Your task to perform on an android device: open app "Chime – Mobile Banking" (install if not already installed) and go to login screen Image 0: 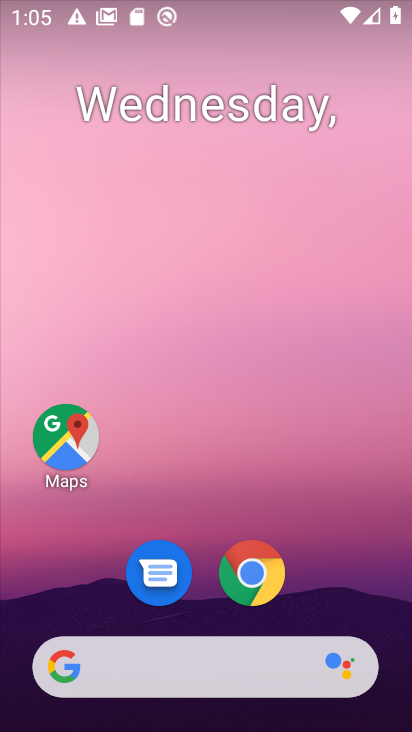
Step 0: press home button
Your task to perform on an android device: open app "Chime – Mobile Banking" (install if not already installed) and go to login screen Image 1: 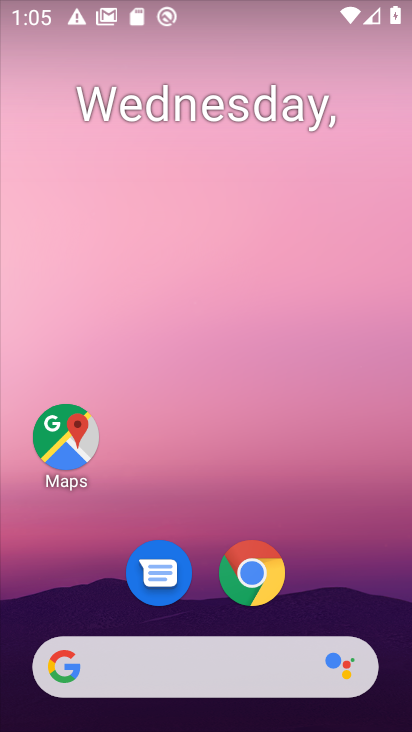
Step 1: click (261, 4)
Your task to perform on an android device: open app "Chime – Mobile Banking" (install if not already installed) and go to login screen Image 2: 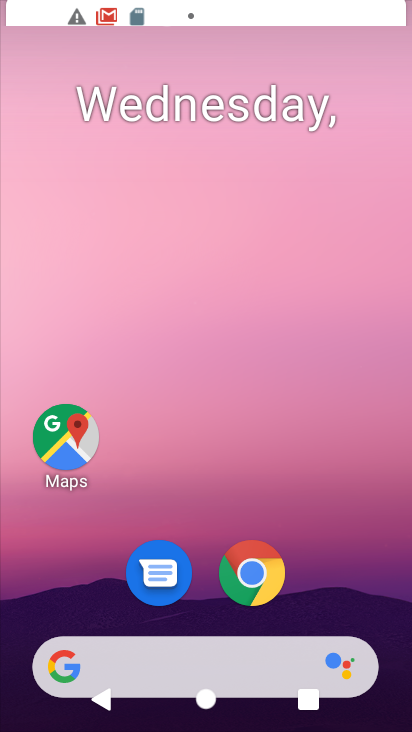
Step 2: drag from (306, 611) to (264, 53)
Your task to perform on an android device: open app "Chime – Mobile Banking" (install if not already installed) and go to login screen Image 3: 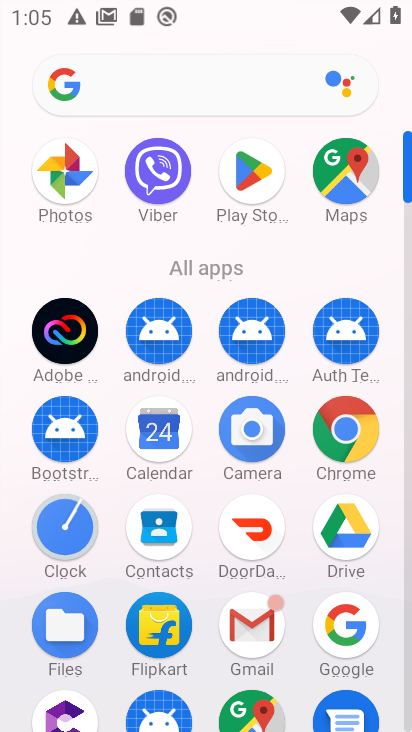
Step 3: click (244, 160)
Your task to perform on an android device: open app "Chime – Mobile Banking" (install if not already installed) and go to login screen Image 4: 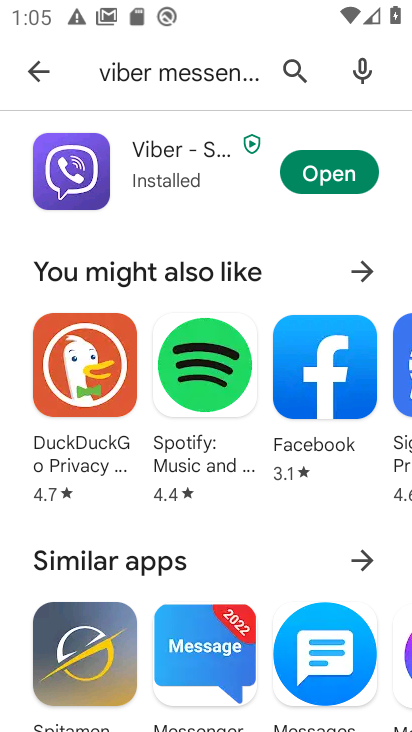
Step 4: click (291, 62)
Your task to perform on an android device: open app "Chime – Mobile Banking" (install if not already installed) and go to login screen Image 5: 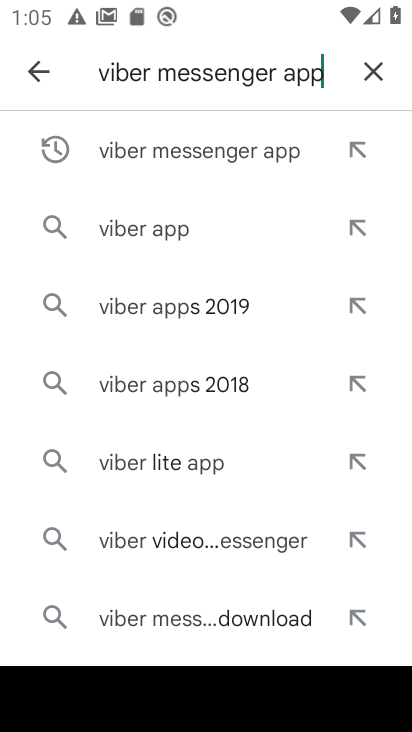
Step 5: click (372, 64)
Your task to perform on an android device: open app "Chime – Mobile Banking" (install if not already installed) and go to login screen Image 6: 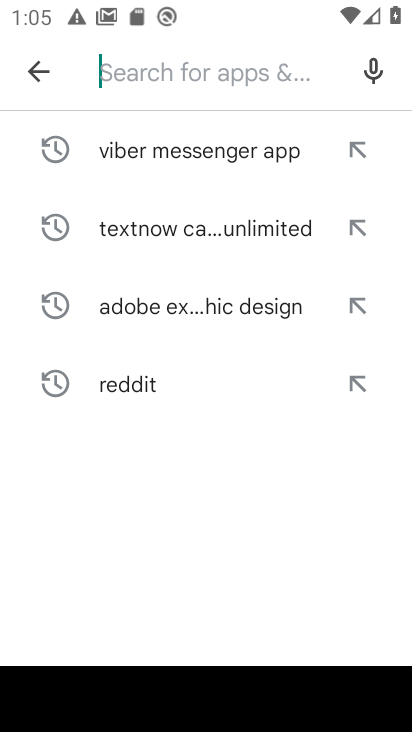
Step 6: type "Chime"
Your task to perform on an android device: open app "Chime – Mobile Banking" (install if not already installed) and go to login screen Image 7: 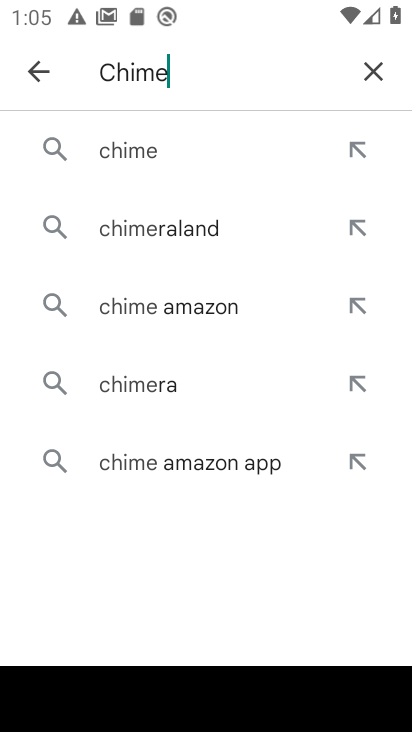
Step 7: click (166, 147)
Your task to perform on an android device: open app "Chime – Mobile Banking" (install if not already installed) and go to login screen Image 8: 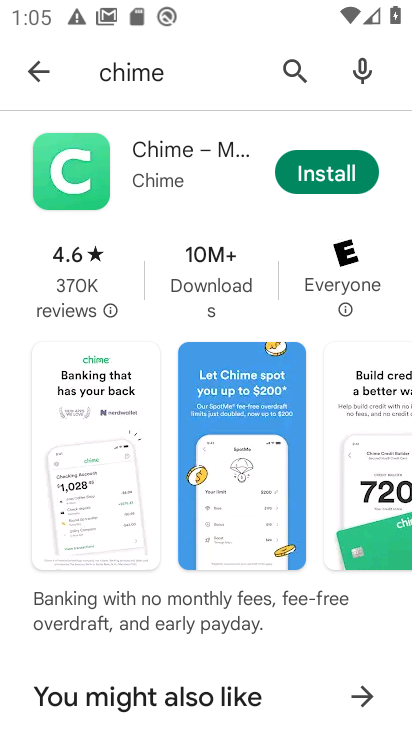
Step 8: click (324, 171)
Your task to perform on an android device: open app "Chime – Mobile Banking" (install if not already installed) and go to login screen Image 9: 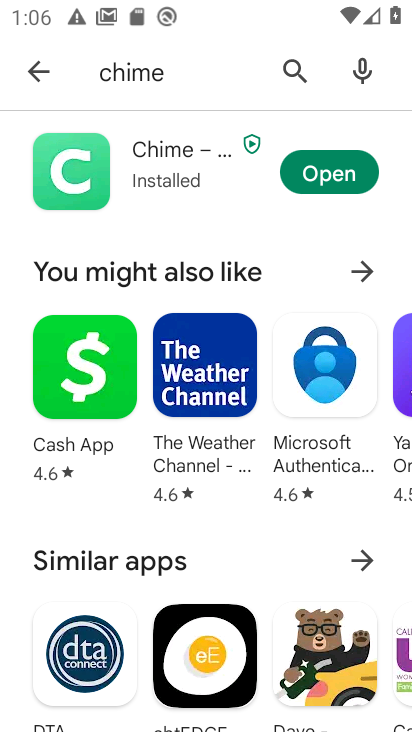
Step 9: click (335, 172)
Your task to perform on an android device: open app "Chime – Mobile Banking" (install if not already installed) and go to login screen Image 10: 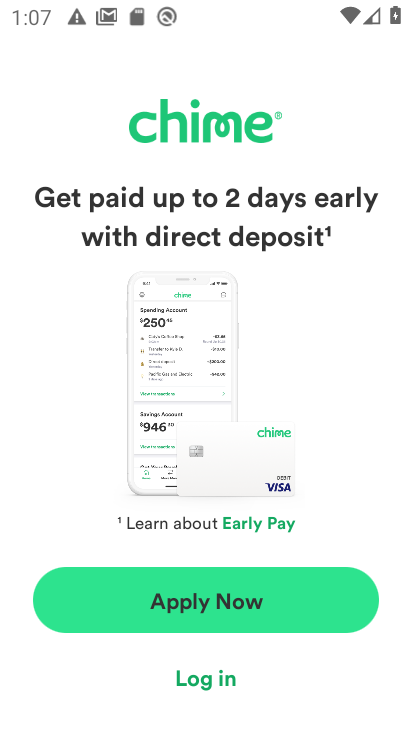
Step 10: click (206, 683)
Your task to perform on an android device: open app "Chime – Mobile Banking" (install if not already installed) and go to login screen Image 11: 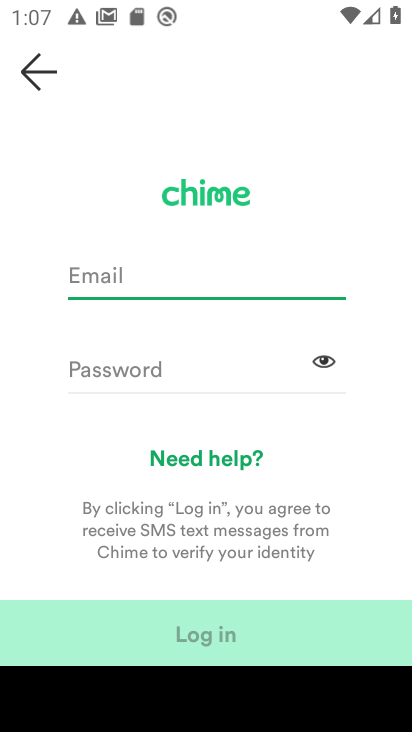
Step 11: task complete